Your task to perform on an android device: Go to sound settings Image 0: 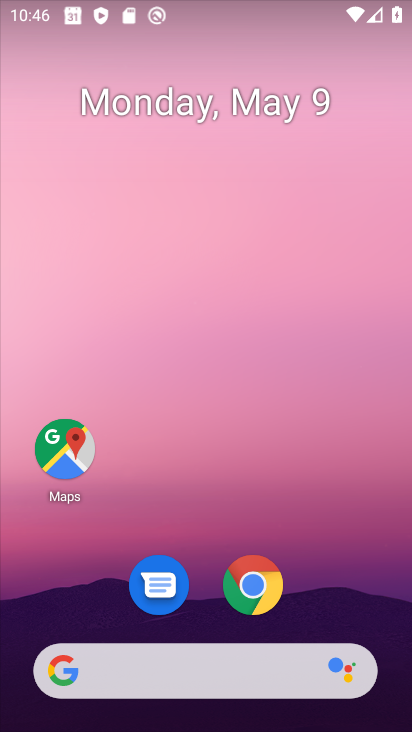
Step 0: drag from (196, 535) to (228, 25)
Your task to perform on an android device: Go to sound settings Image 1: 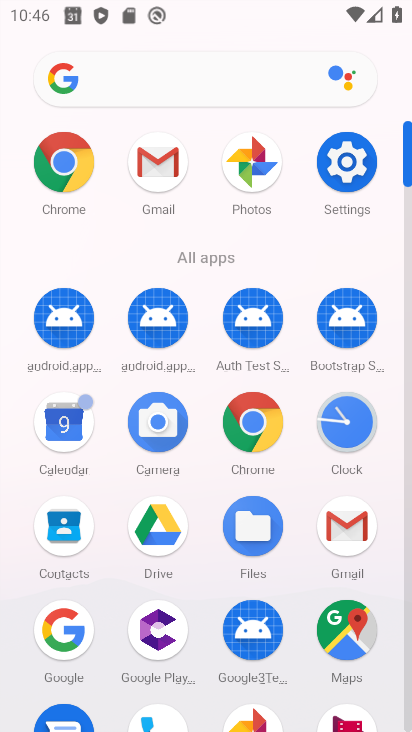
Step 1: click (346, 157)
Your task to perform on an android device: Go to sound settings Image 2: 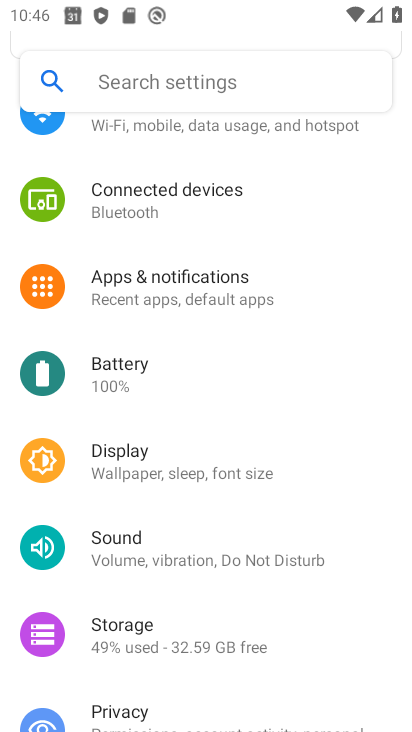
Step 2: click (227, 547)
Your task to perform on an android device: Go to sound settings Image 3: 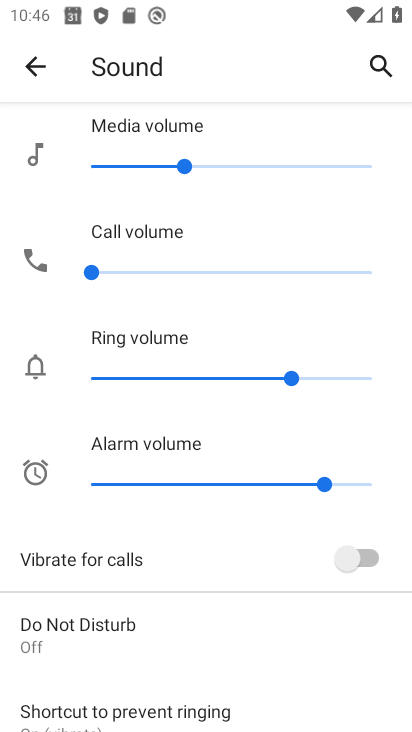
Step 3: task complete